Your task to perform on an android device: open chrome and create a bookmark for the current page Image 0: 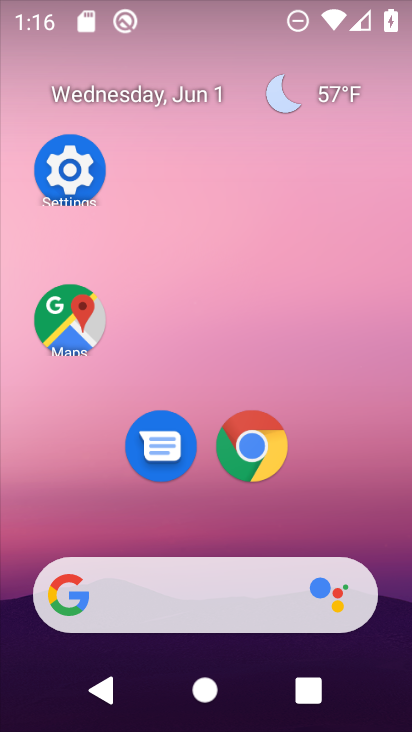
Step 0: click (245, 450)
Your task to perform on an android device: open chrome and create a bookmark for the current page Image 1: 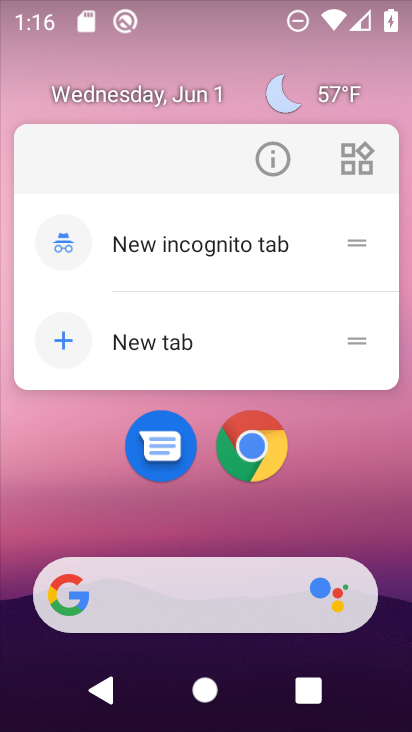
Step 1: click (255, 445)
Your task to perform on an android device: open chrome and create a bookmark for the current page Image 2: 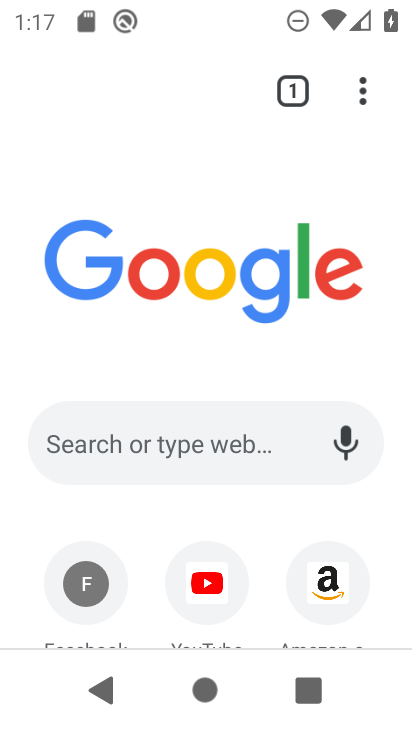
Step 2: click (364, 97)
Your task to perform on an android device: open chrome and create a bookmark for the current page Image 3: 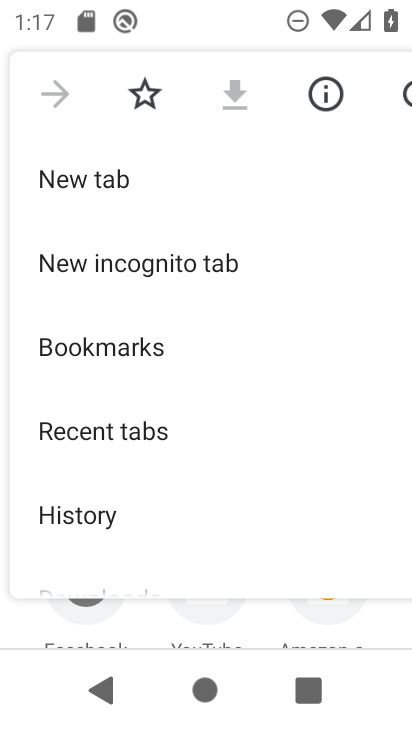
Step 3: click (148, 91)
Your task to perform on an android device: open chrome and create a bookmark for the current page Image 4: 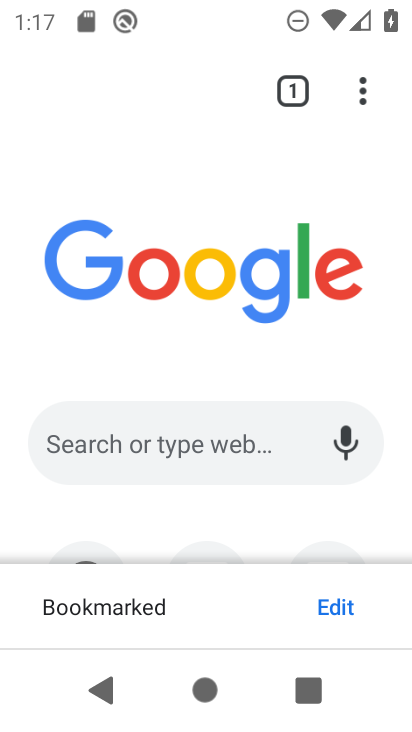
Step 4: task complete